Your task to perform on an android device: Open Google Maps Image 0: 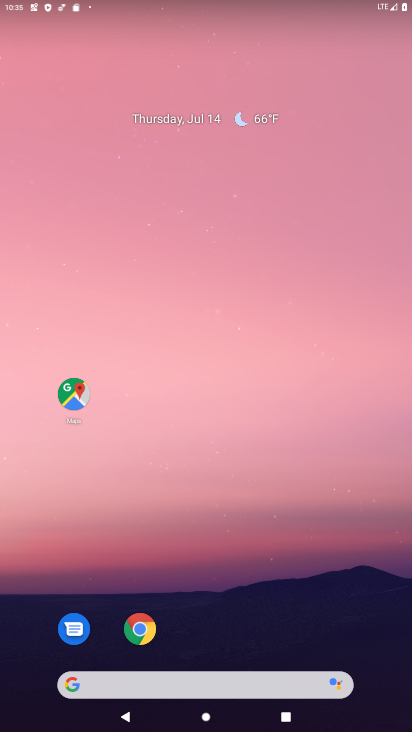
Step 0: press home button
Your task to perform on an android device: Open Google Maps Image 1: 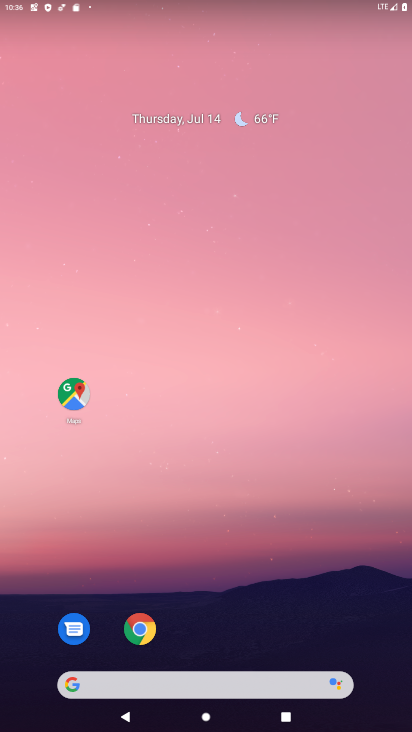
Step 1: click (78, 383)
Your task to perform on an android device: Open Google Maps Image 2: 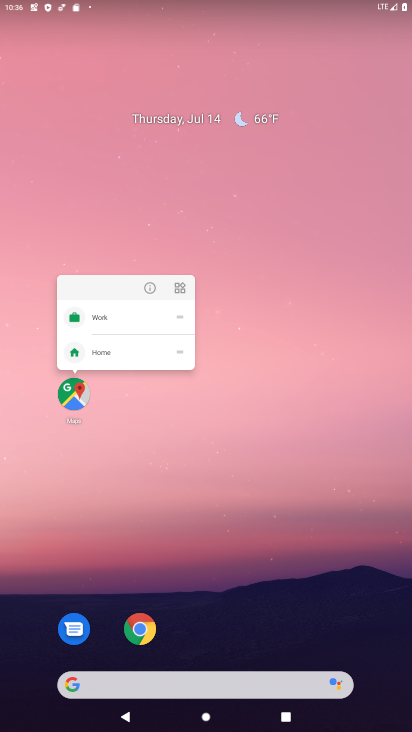
Step 2: click (78, 396)
Your task to perform on an android device: Open Google Maps Image 3: 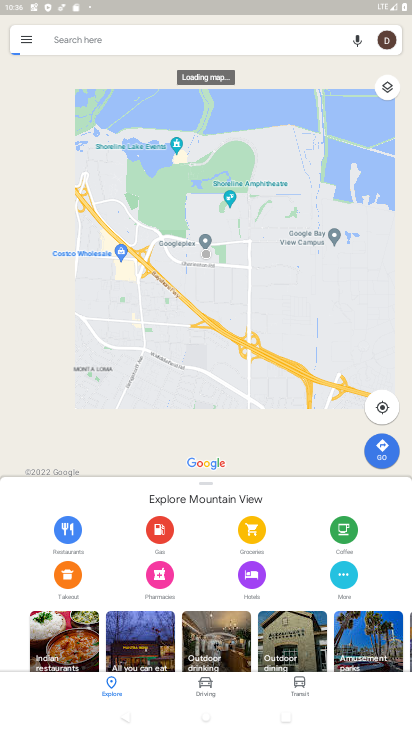
Step 3: click (24, 37)
Your task to perform on an android device: Open Google Maps Image 4: 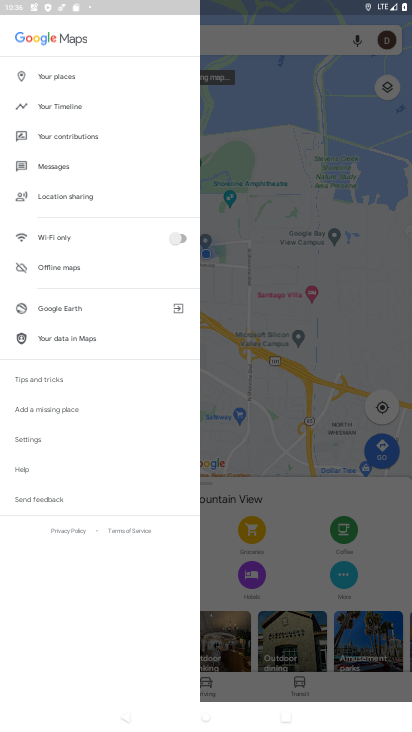
Step 4: task complete